Your task to perform on an android device: clear history in the chrome app Image 0: 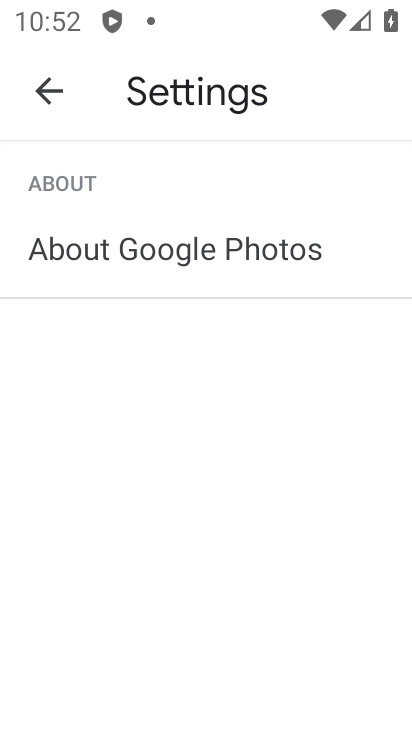
Step 0: press home button
Your task to perform on an android device: clear history in the chrome app Image 1: 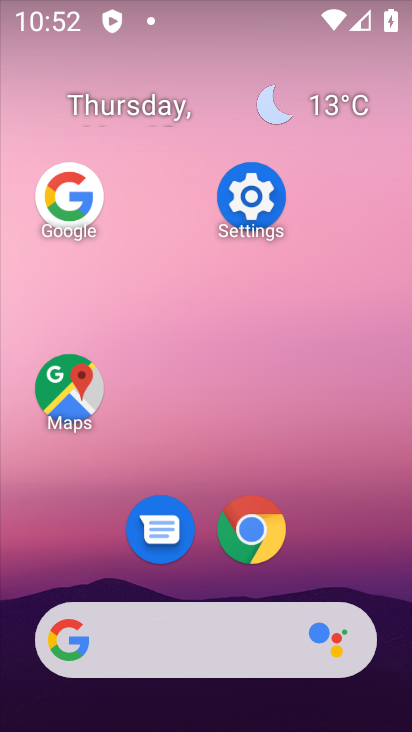
Step 1: click (231, 529)
Your task to perform on an android device: clear history in the chrome app Image 2: 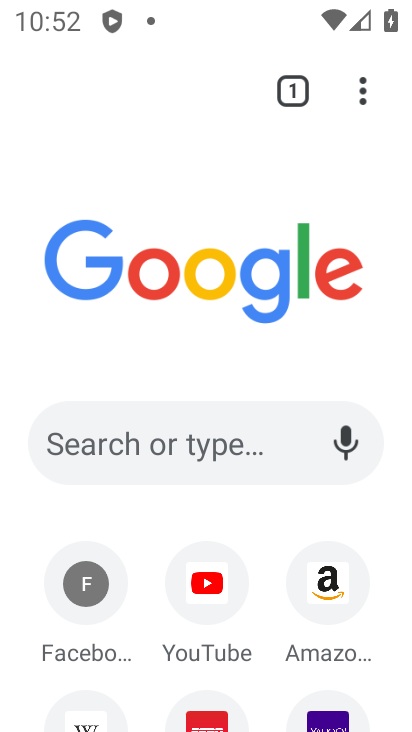
Step 2: click (372, 69)
Your task to perform on an android device: clear history in the chrome app Image 3: 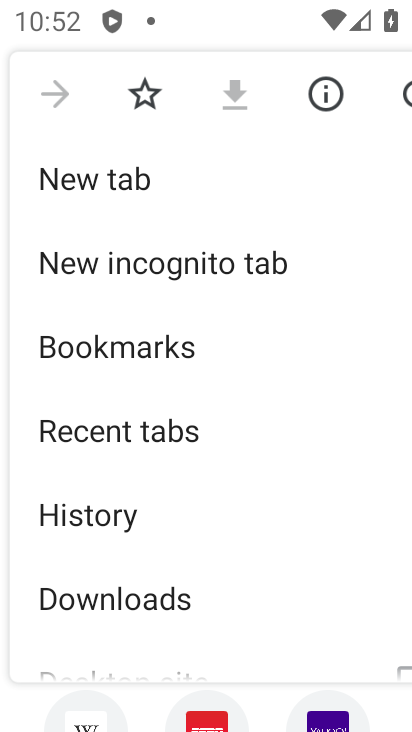
Step 3: click (78, 506)
Your task to perform on an android device: clear history in the chrome app Image 4: 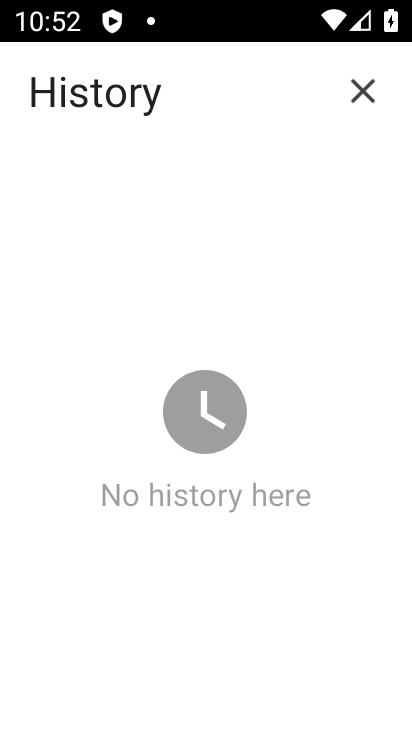
Step 4: task complete